Your task to perform on an android device: toggle javascript in the chrome app Image 0: 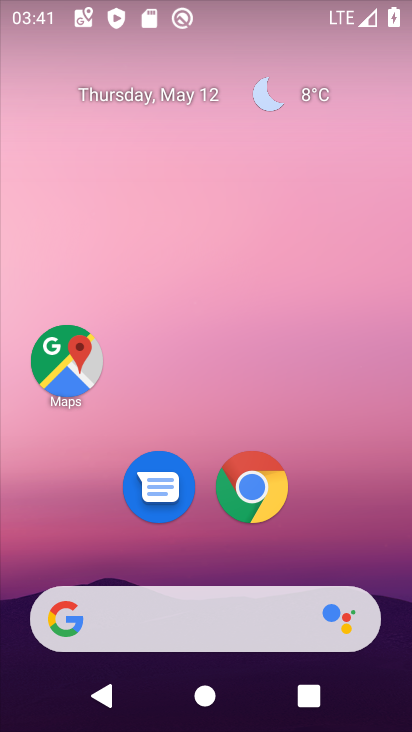
Step 0: click (250, 495)
Your task to perform on an android device: toggle javascript in the chrome app Image 1: 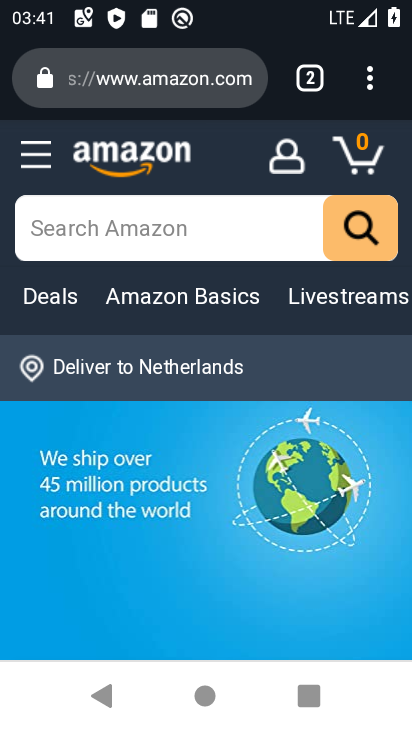
Step 1: click (366, 75)
Your task to perform on an android device: toggle javascript in the chrome app Image 2: 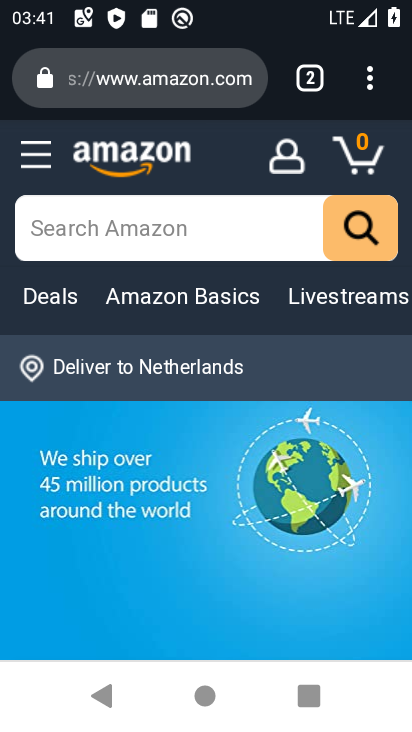
Step 2: drag from (368, 89) to (172, 545)
Your task to perform on an android device: toggle javascript in the chrome app Image 3: 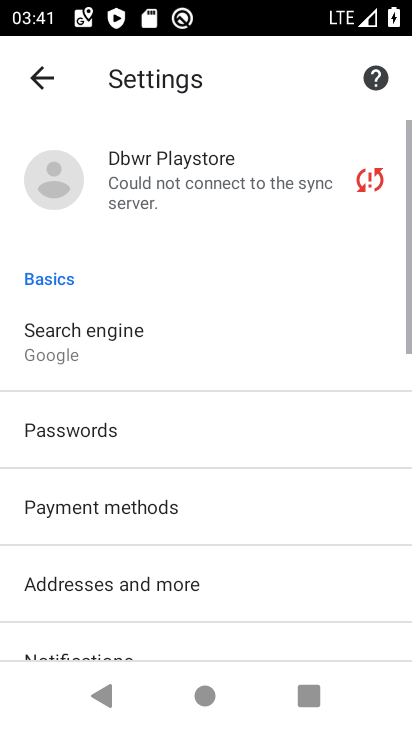
Step 3: drag from (265, 554) to (279, 12)
Your task to perform on an android device: toggle javascript in the chrome app Image 4: 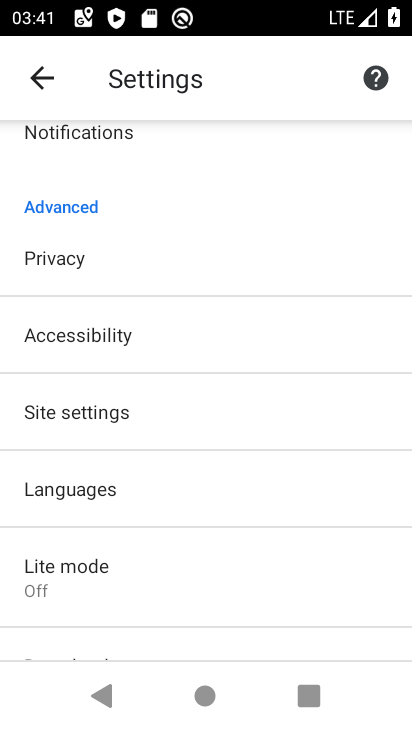
Step 4: drag from (166, 506) to (251, 188)
Your task to perform on an android device: toggle javascript in the chrome app Image 5: 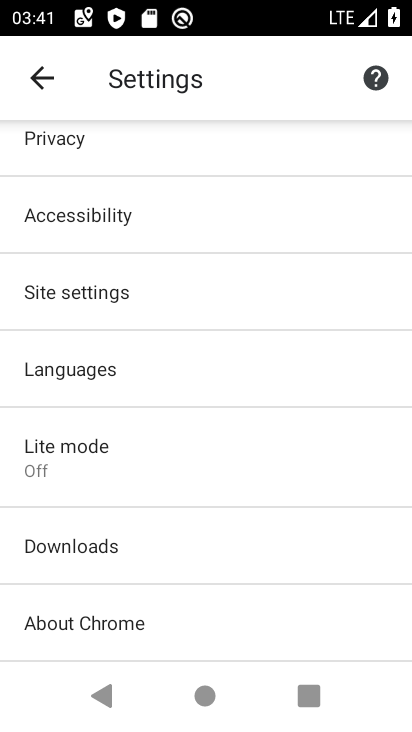
Step 5: click (122, 300)
Your task to perform on an android device: toggle javascript in the chrome app Image 6: 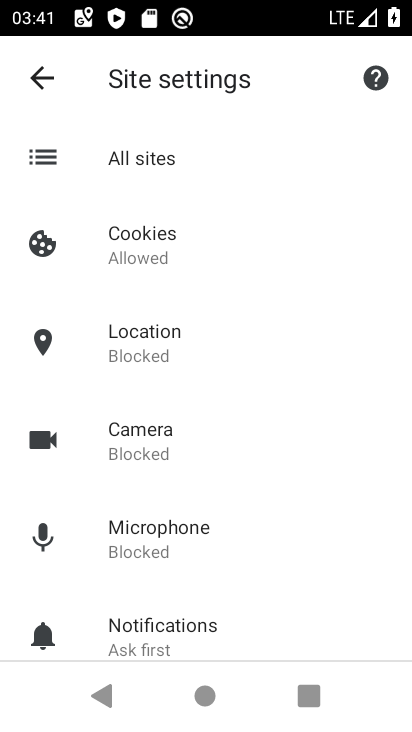
Step 6: drag from (294, 572) to (292, 121)
Your task to perform on an android device: toggle javascript in the chrome app Image 7: 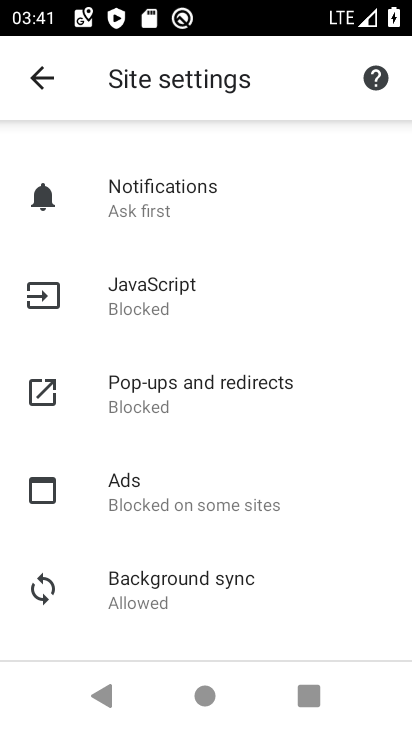
Step 7: click (160, 302)
Your task to perform on an android device: toggle javascript in the chrome app Image 8: 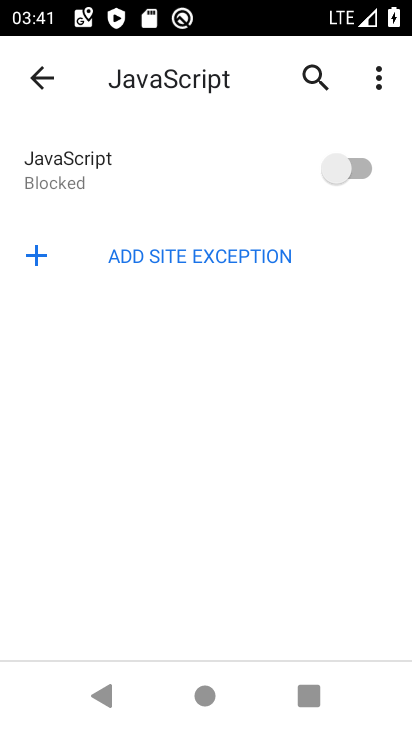
Step 8: click (343, 163)
Your task to perform on an android device: toggle javascript in the chrome app Image 9: 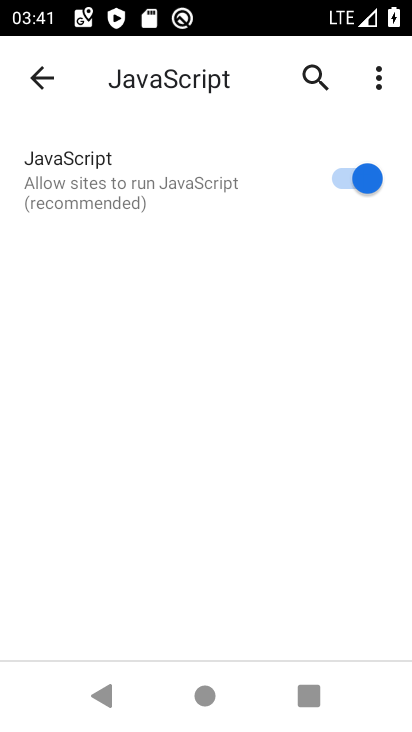
Step 9: task complete